Your task to perform on an android device: Open Maps and search for coffee Image 0: 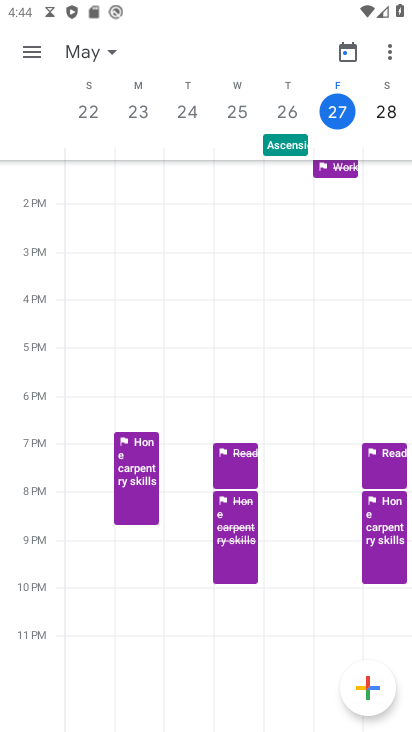
Step 0: press home button
Your task to perform on an android device: Open Maps and search for coffee Image 1: 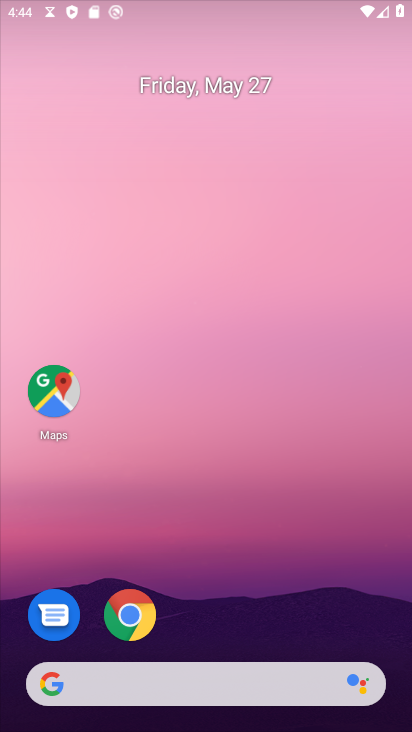
Step 1: drag from (267, 308) to (154, 0)
Your task to perform on an android device: Open Maps and search for coffee Image 2: 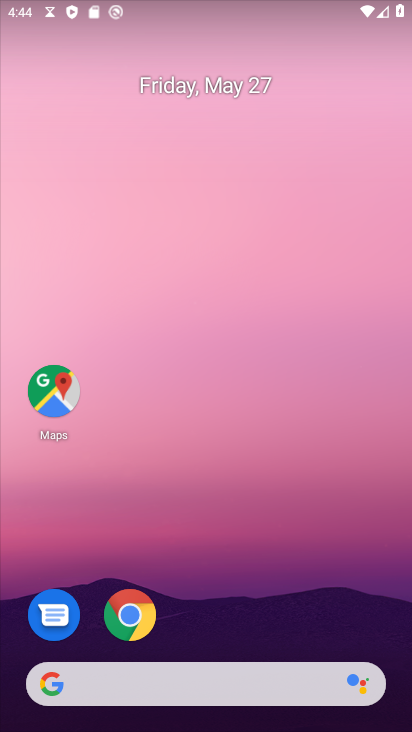
Step 2: click (38, 384)
Your task to perform on an android device: Open Maps and search for coffee Image 3: 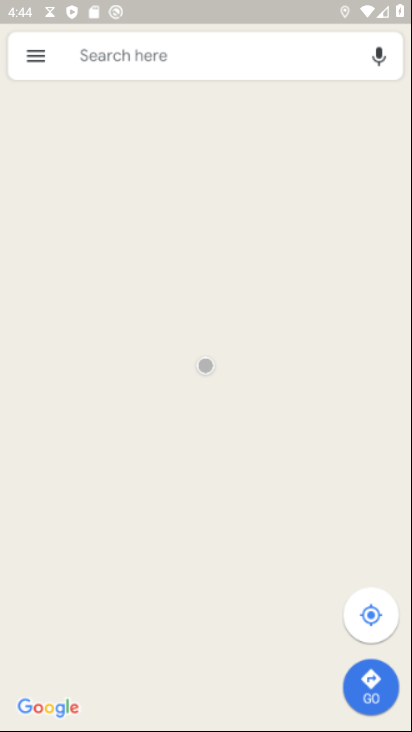
Step 3: click (188, 54)
Your task to perform on an android device: Open Maps and search for coffee Image 4: 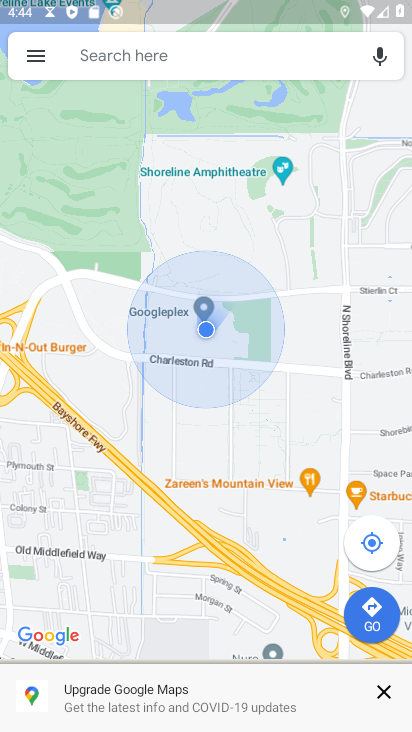
Step 4: click (163, 58)
Your task to perform on an android device: Open Maps and search for coffee Image 5: 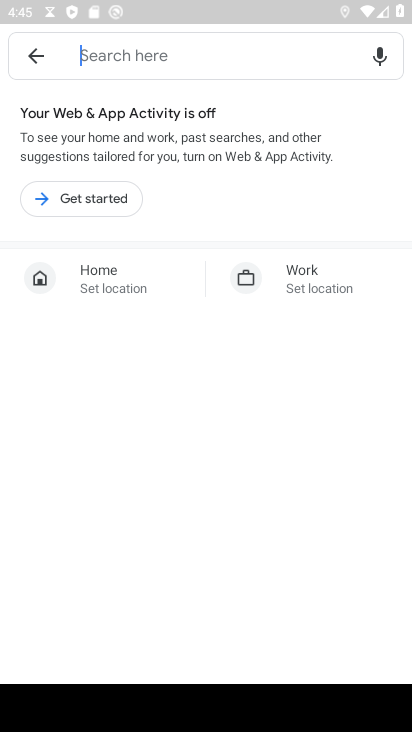
Step 5: type "coffee"
Your task to perform on an android device: Open Maps and search for coffee Image 6: 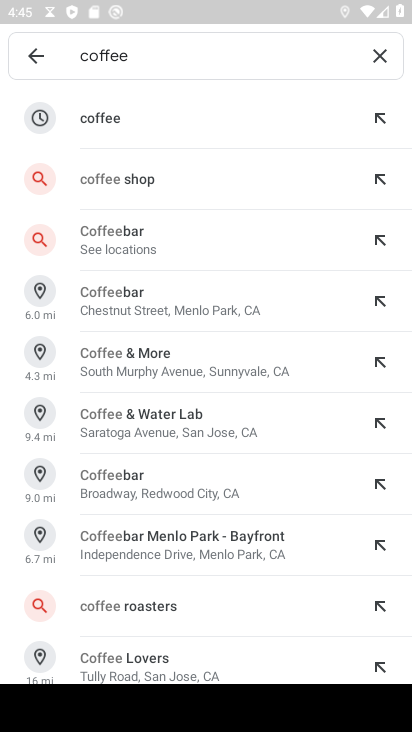
Step 6: click (127, 147)
Your task to perform on an android device: Open Maps and search for coffee Image 7: 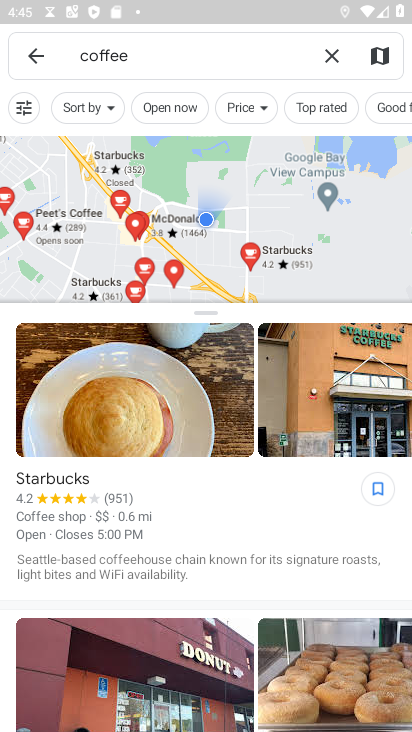
Step 7: task complete